Your task to perform on an android device: turn smart compose on in the gmail app Image 0: 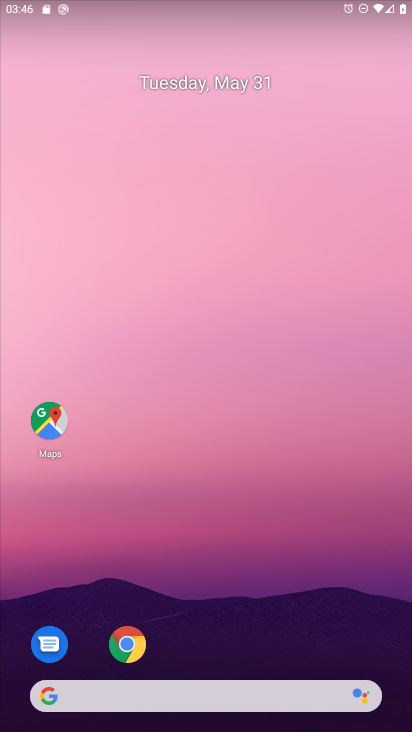
Step 0: drag from (254, 547) to (205, 69)
Your task to perform on an android device: turn smart compose on in the gmail app Image 1: 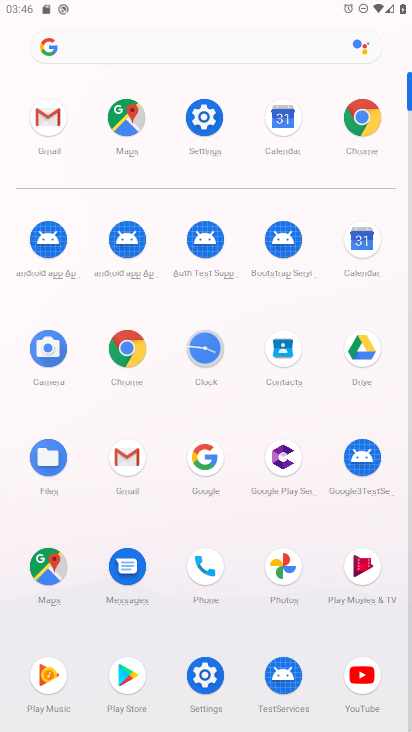
Step 1: click (51, 119)
Your task to perform on an android device: turn smart compose on in the gmail app Image 2: 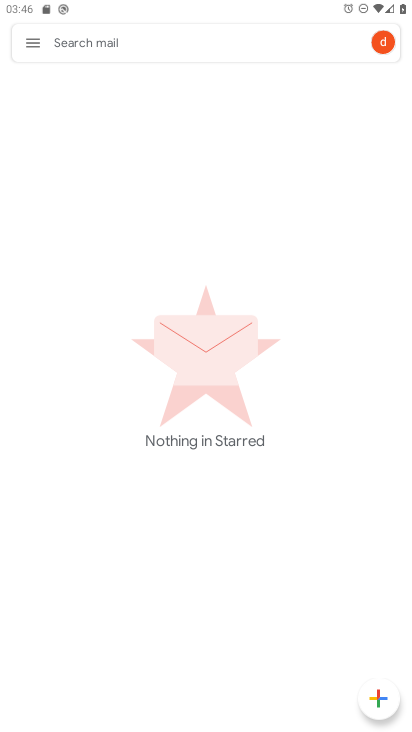
Step 2: click (32, 36)
Your task to perform on an android device: turn smart compose on in the gmail app Image 3: 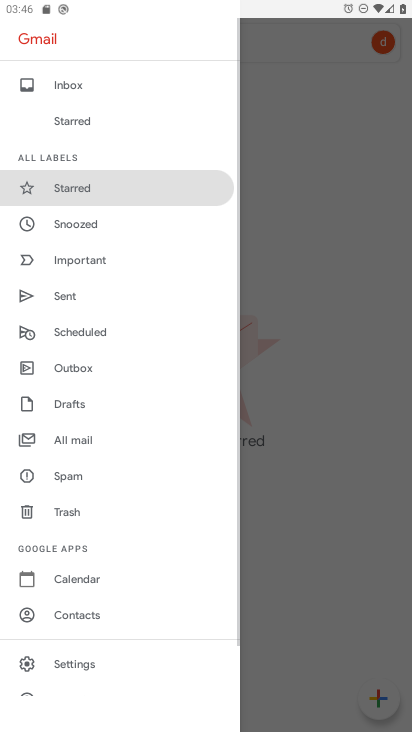
Step 3: click (81, 669)
Your task to perform on an android device: turn smart compose on in the gmail app Image 4: 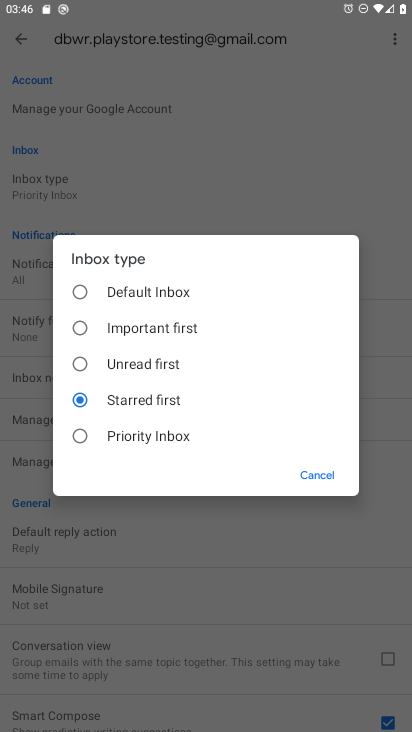
Step 4: click (301, 482)
Your task to perform on an android device: turn smart compose on in the gmail app Image 5: 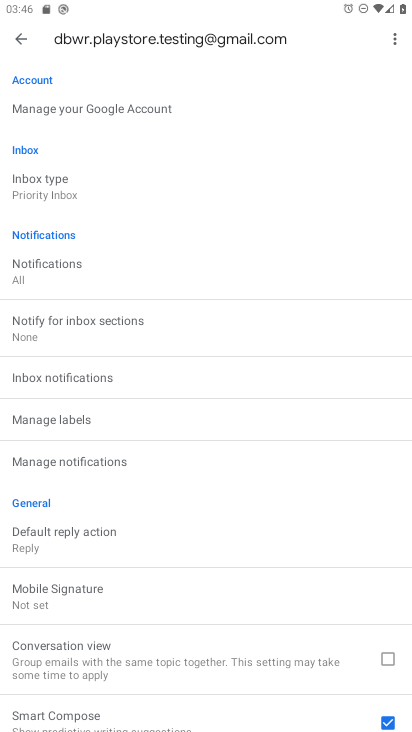
Step 5: task complete